Your task to perform on an android device: change text size in settings app Image 0: 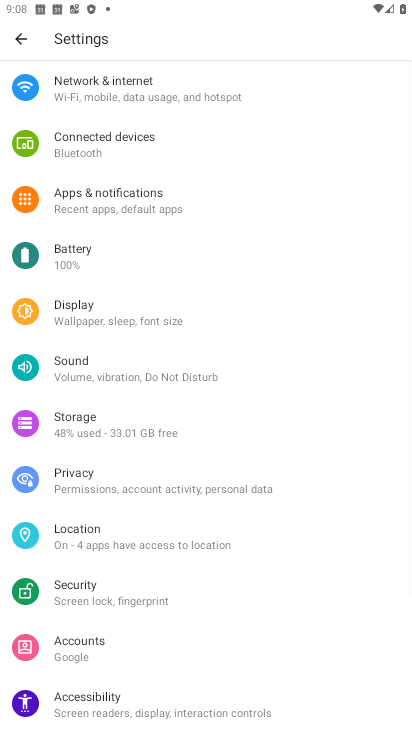
Step 0: drag from (213, 550) to (217, 196)
Your task to perform on an android device: change text size in settings app Image 1: 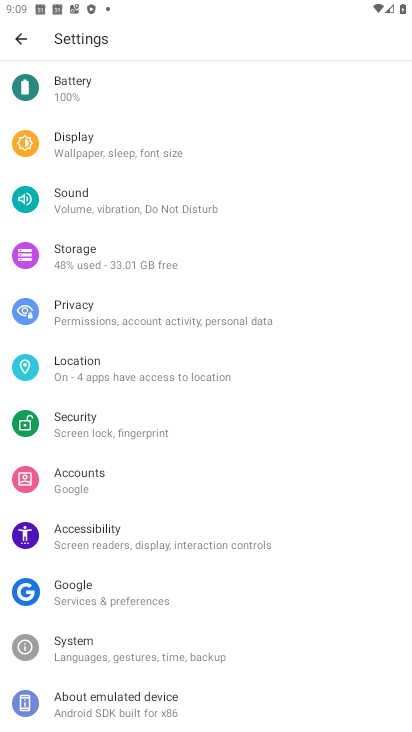
Step 1: drag from (207, 671) to (295, 244)
Your task to perform on an android device: change text size in settings app Image 2: 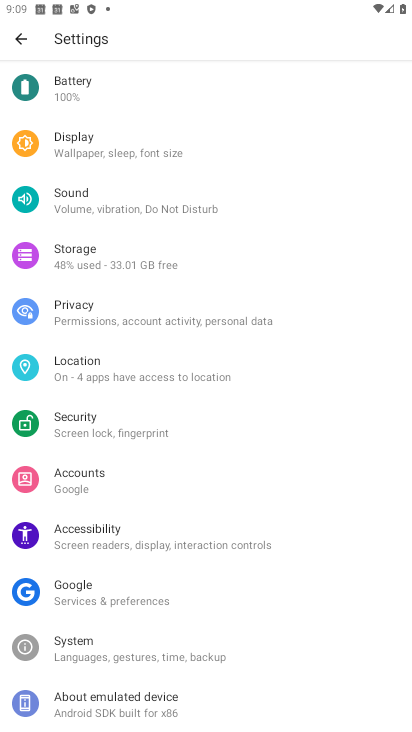
Step 2: click (139, 159)
Your task to perform on an android device: change text size in settings app Image 3: 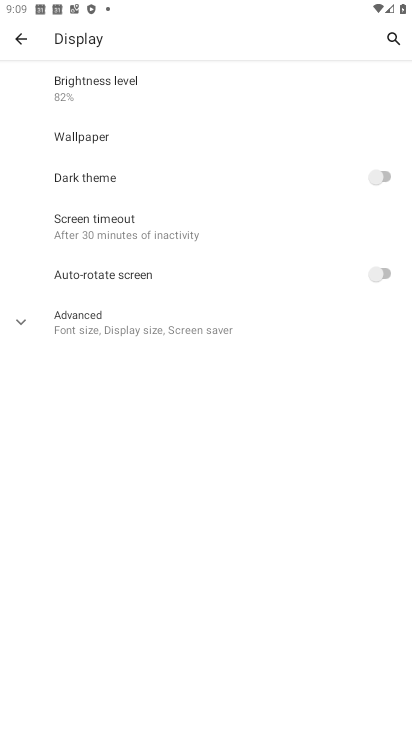
Step 3: click (159, 327)
Your task to perform on an android device: change text size in settings app Image 4: 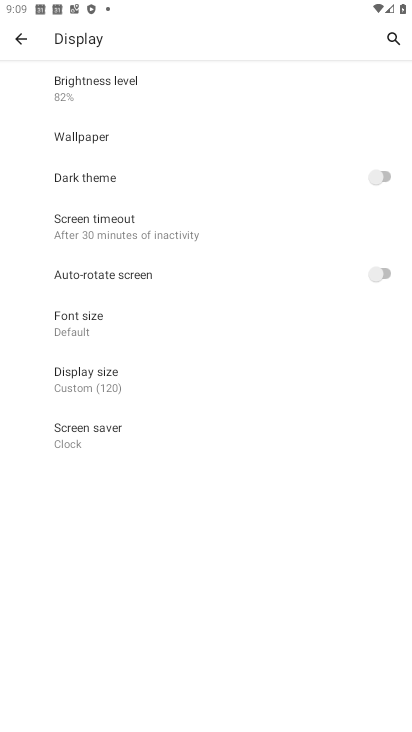
Step 4: click (136, 328)
Your task to perform on an android device: change text size in settings app Image 5: 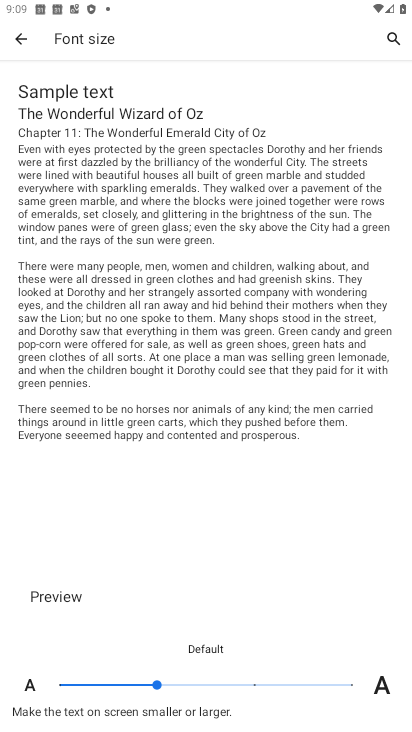
Step 5: drag from (227, 508) to (272, 131)
Your task to perform on an android device: change text size in settings app Image 6: 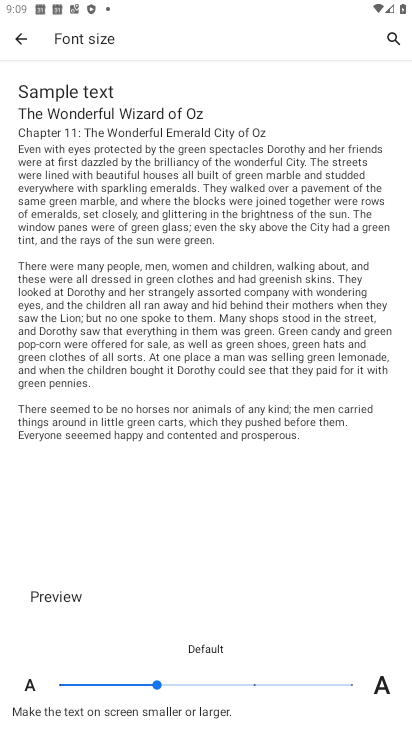
Step 6: click (219, 685)
Your task to perform on an android device: change text size in settings app Image 7: 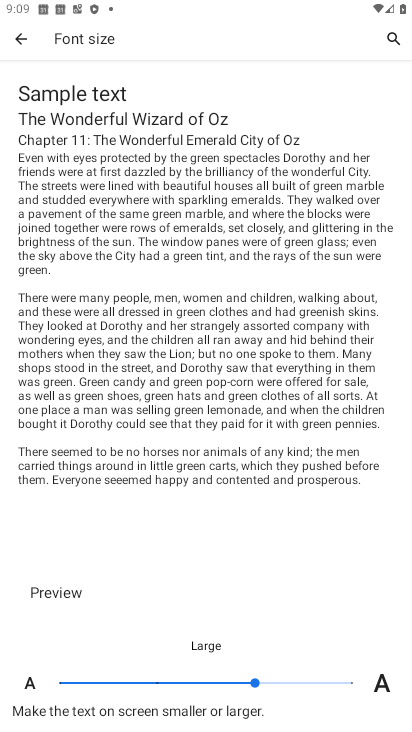
Step 7: task complete